Your task to perform on an android device: allow cookies in the chrome app Image 0: 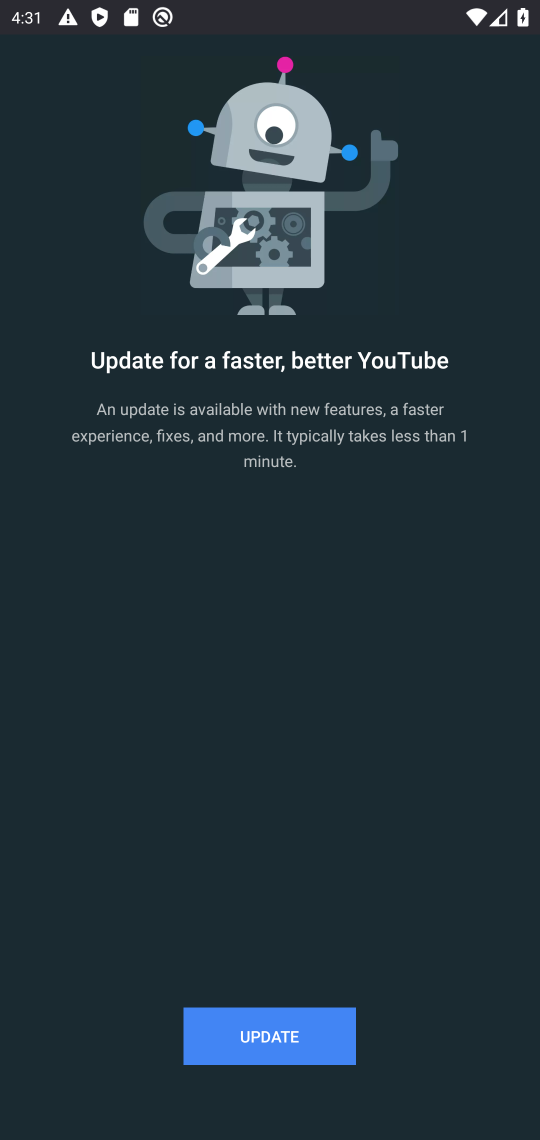
Step 0: press home button
Your task to perform on an android device: allow cookies in the chrome app Image 1: 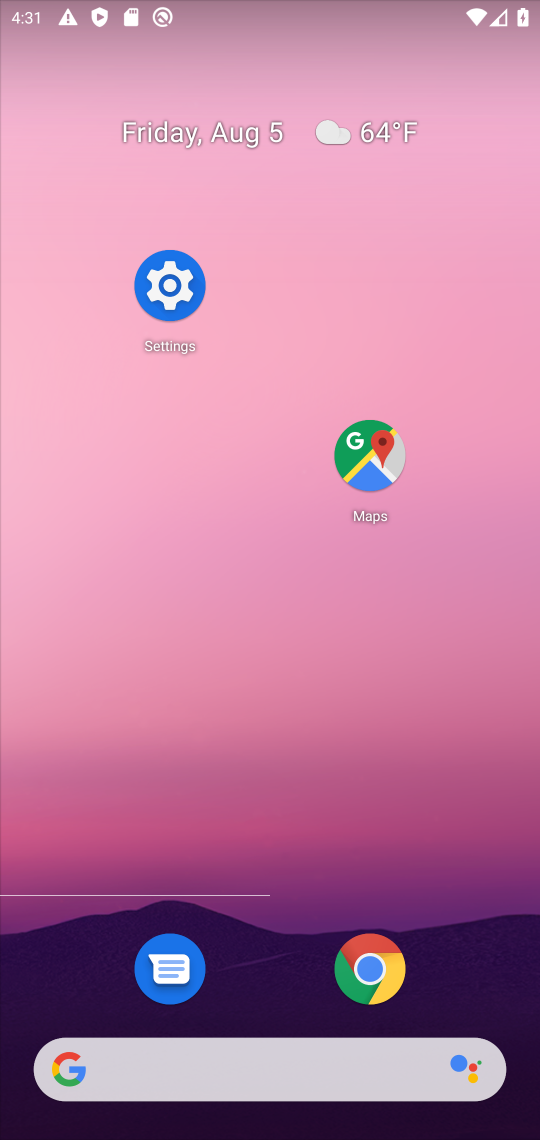
Step 1: click (388, 978)
Your task to perform on an android device: allow cookies in the chrome app Image 2: 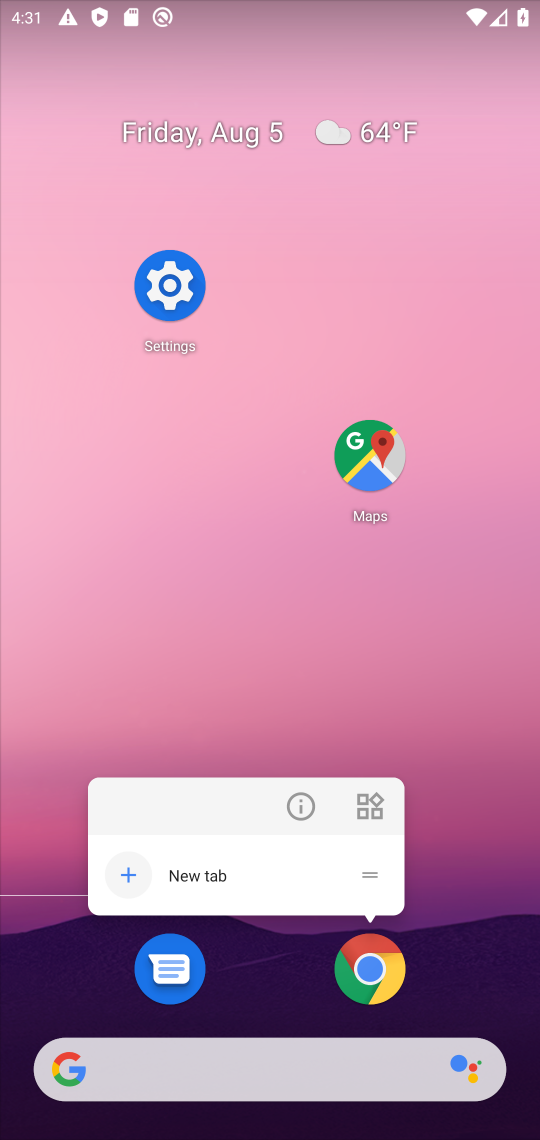
Step 2: click (367, 975)
Your task to perform on an android device: allow cookies in the chrome app Image 3: 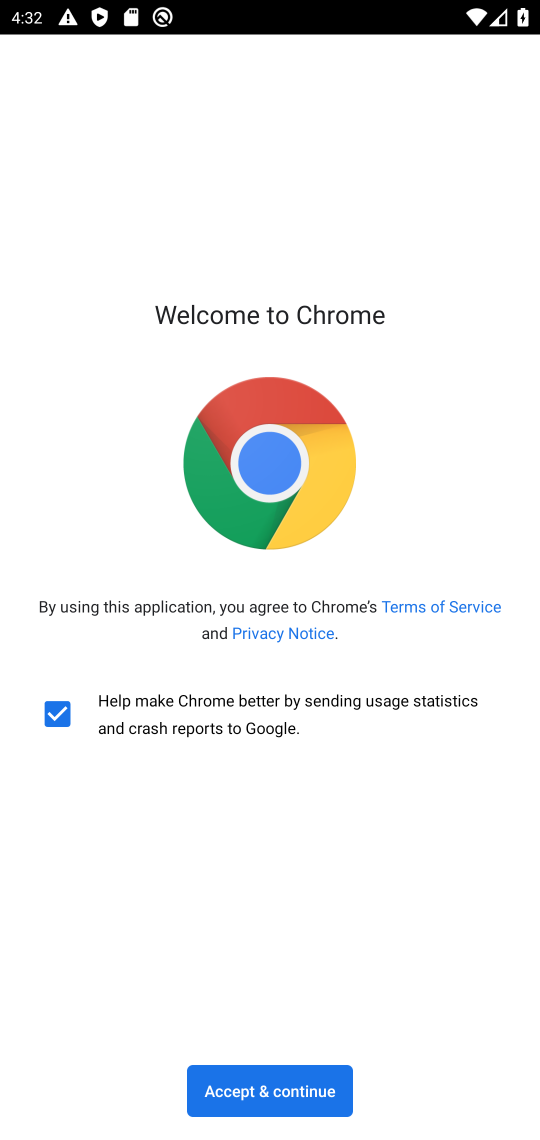
Step 3: drag from (277, 1091) to (433, 1091)
Your task to perform on an android device: allow cookies in the chrome app Image 4: 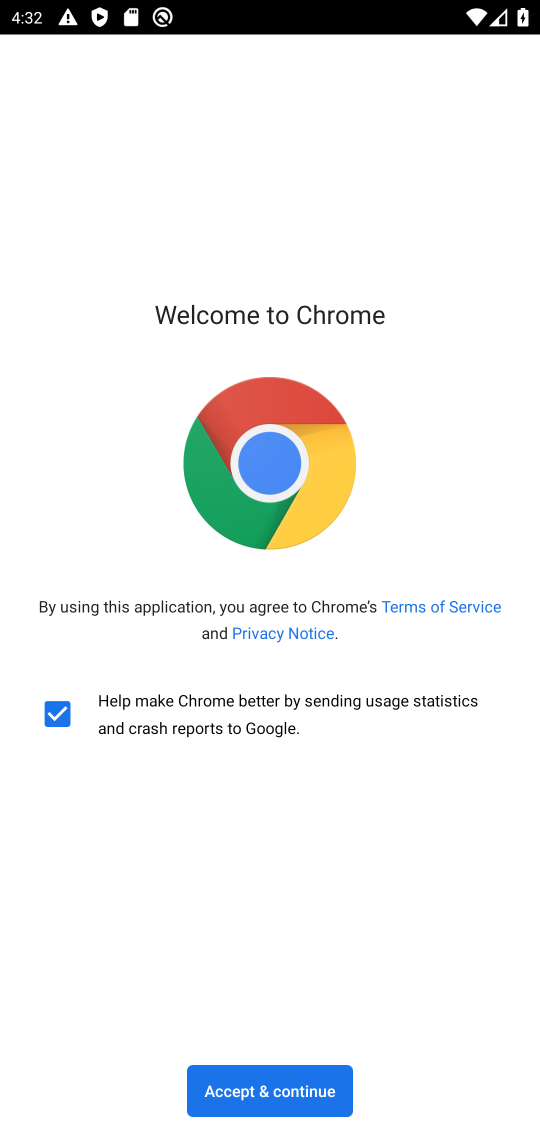
Step 4: click (277, 1117)
Your task to perform on an android device: allow cookies in the chrome app Image 5: 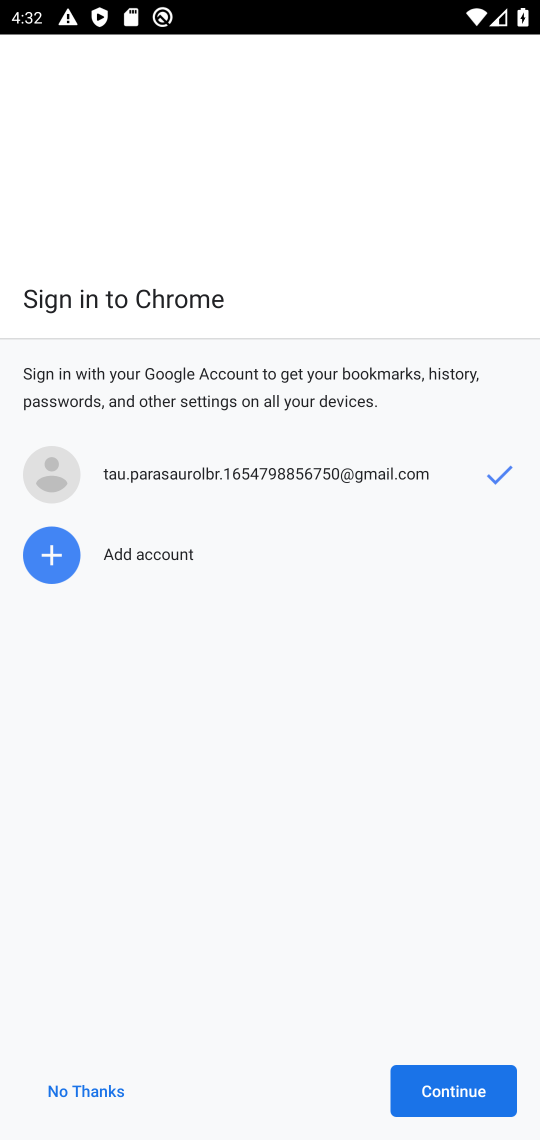
Step 5: click (406, 1086)
Your task to perform on an android device: allow cookies in the chrome app Image 6: 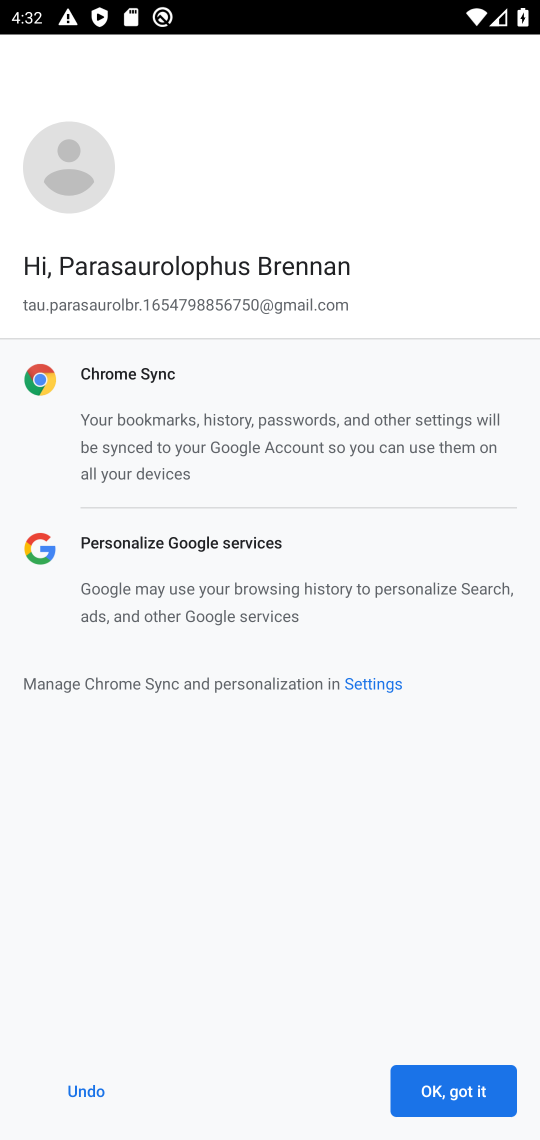
Step 6: click (406, 1086)
Your task to perform on an android device: allow cookies in the chrome app Image 7: 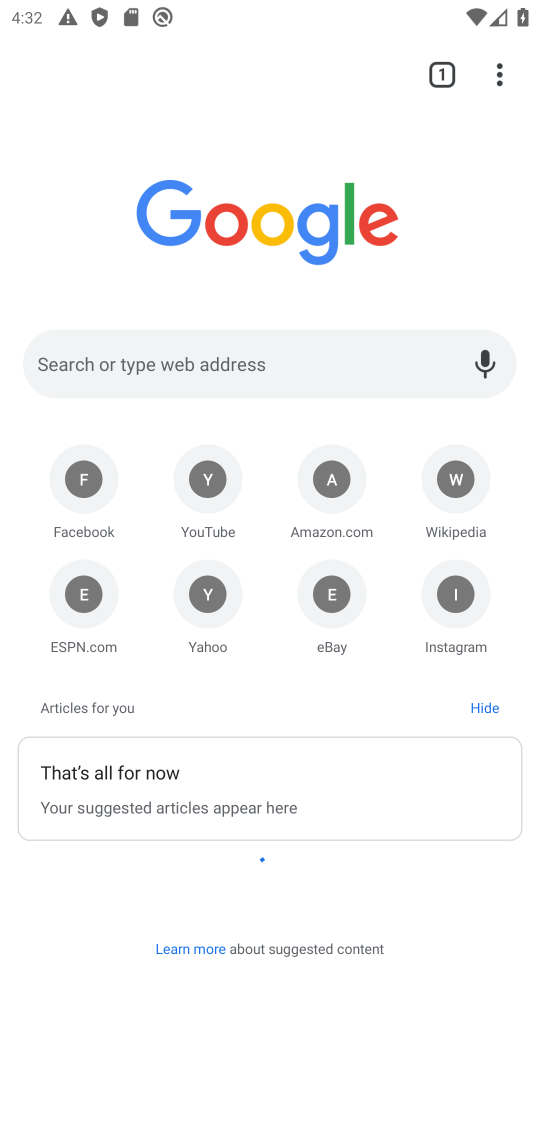
Step 7: click (499, 68)
Your task to perform on an android device: allow cookies in the chrome app Image 8: 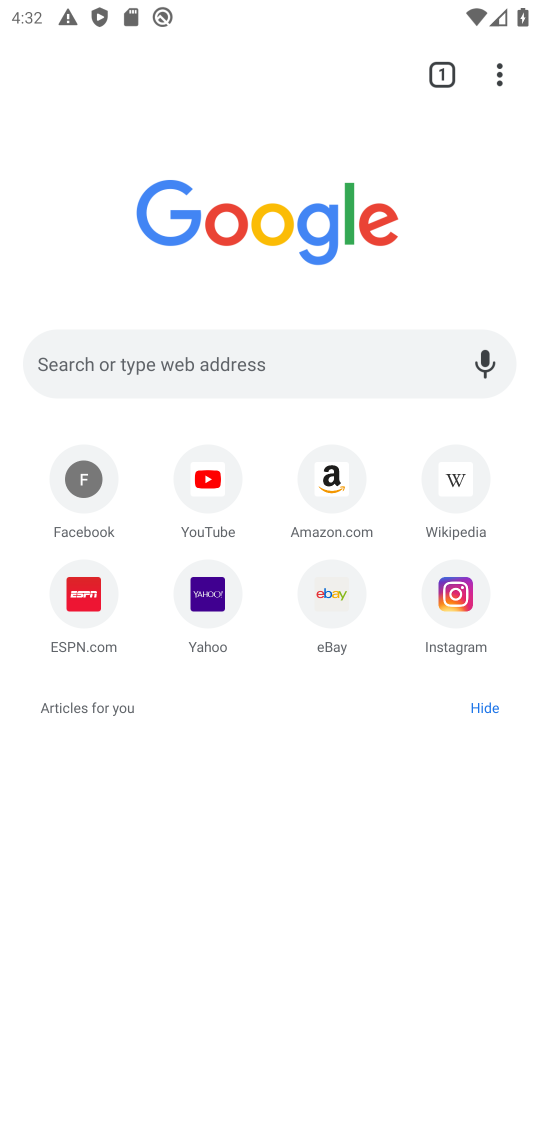
Step 8: click (505, 74)
Your task to perform on an android device: allow cookies in the chrome app Image 9: 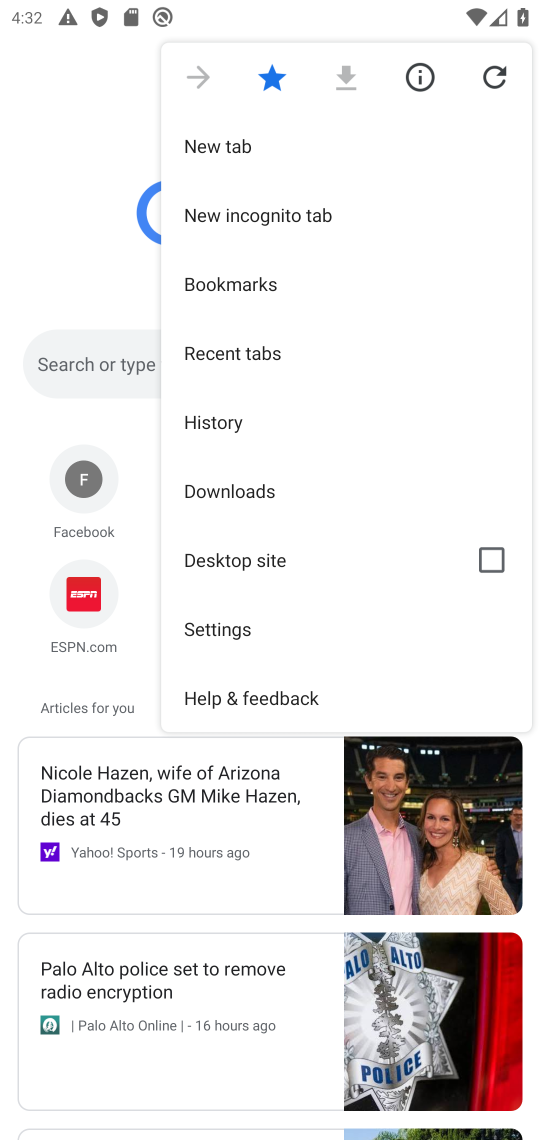
Step 9: click (245, 628)
Your task to perform on an android device: allow cookies in the chrome app Image 10: 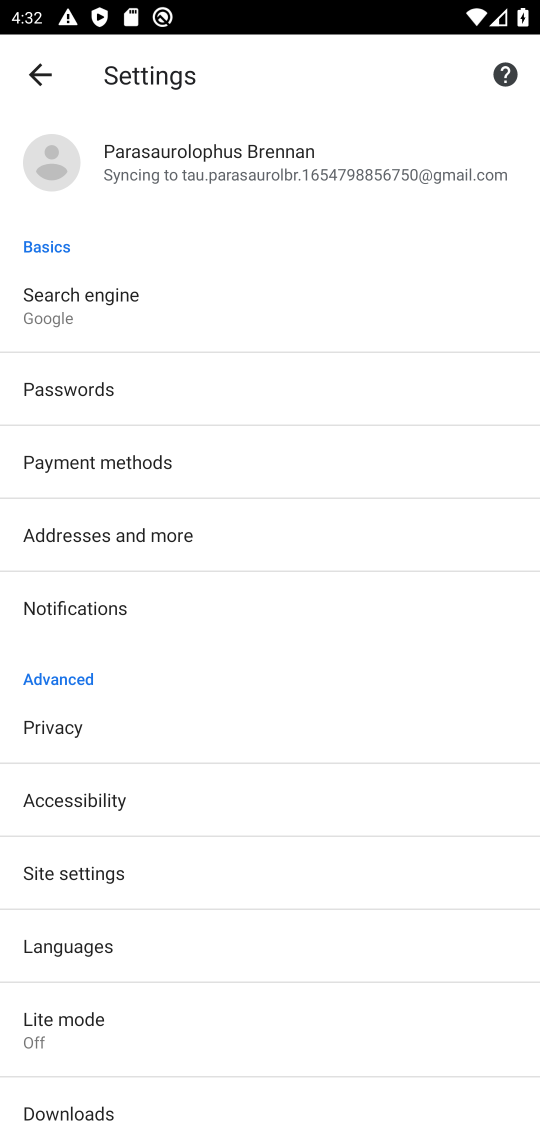
Step 10: click (157, 889)
Your task to perform on an android device: allow cookies in the chrome app Image 11: 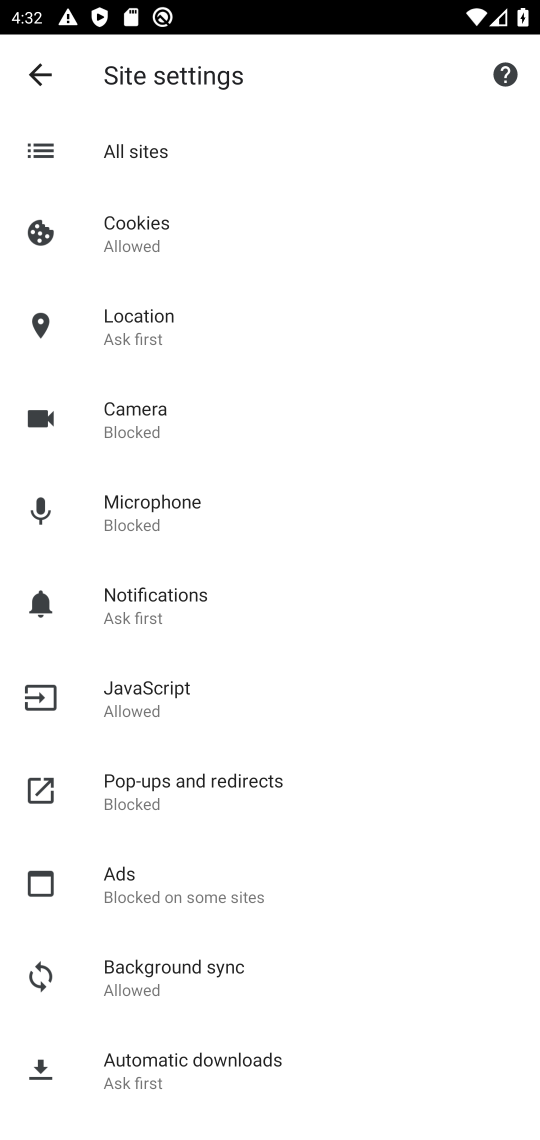
Step 11: click (216, 246)
Your task to perform on an android device: allow cookies in the chrome app Image 12: 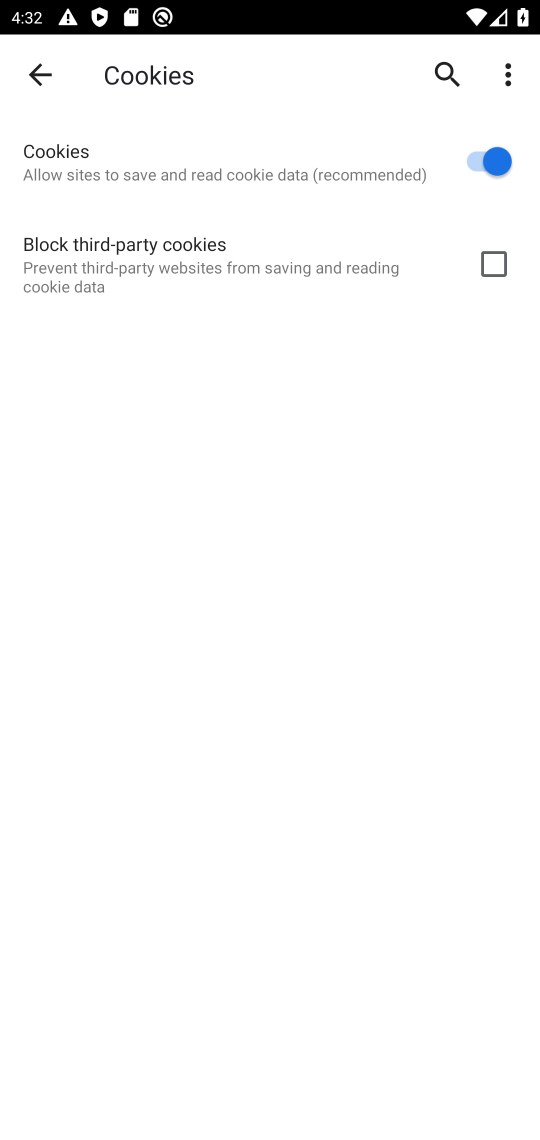
Step 12: task complete